Your task to perform on an android device: open a bookmark in the chrome app Image 0: 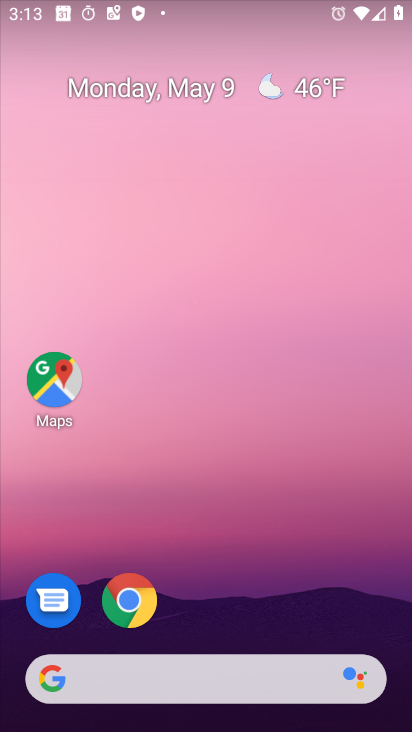
Step 0: click (132, 590)
Your task to perform on an android device: open a bookmark in the chrome app Image 1: 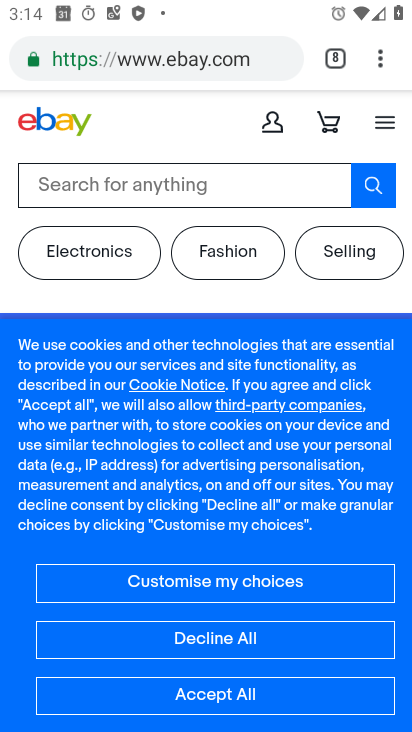
Step 1: drag from (376, 57) to (200, 233)
Your task to perform on an android device: open a bookmark in the chrome app Image 2: 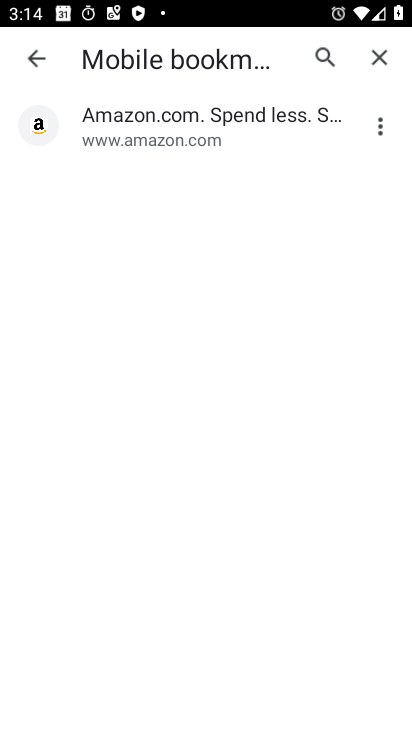
Step 2: click (145, 131)
Your task to perform on an android device: open a bookmark in the chrome app Image 3: 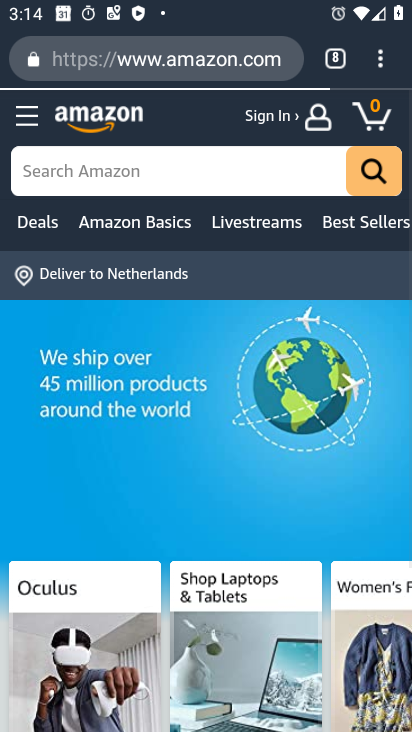
Step 3: task complete